Your task to perform on an android device: allow cookies in the chrome app Image 0: 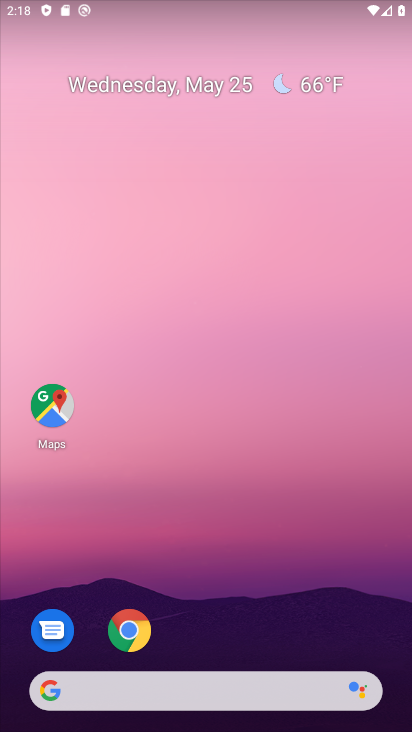
Step 0: press home button
Your task to perform on an android device: allow cookies in the chrome app Image 1: 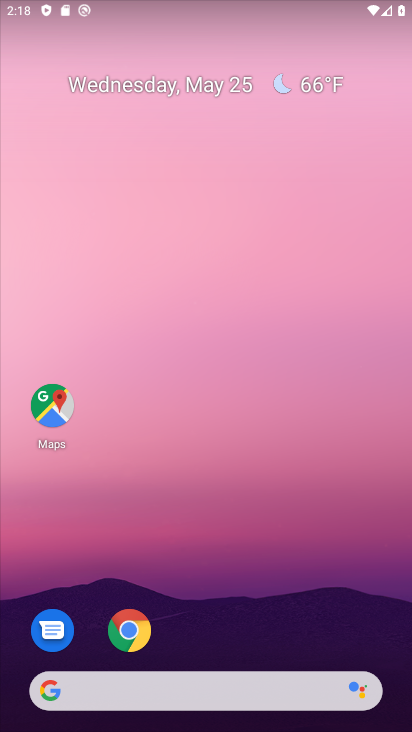
Step 1: drag from (208, 648) to (241, 18)
Your task to perform on an android device: allow cookies in the chrome app Image 2: 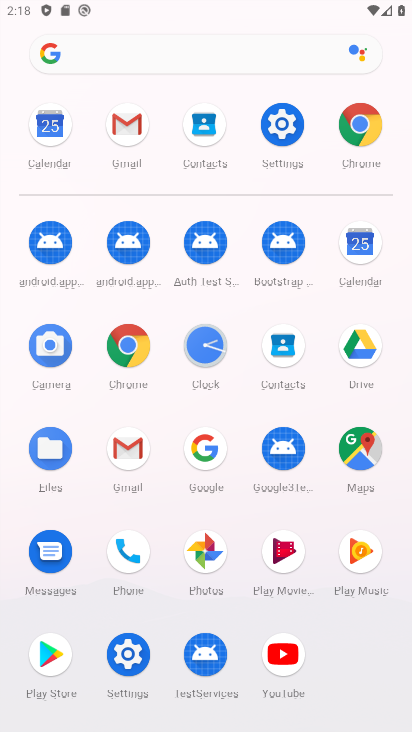
Step 2: click (124, 340)
Your task to perform on an android device: allow cookies in the chrome app Image 3: 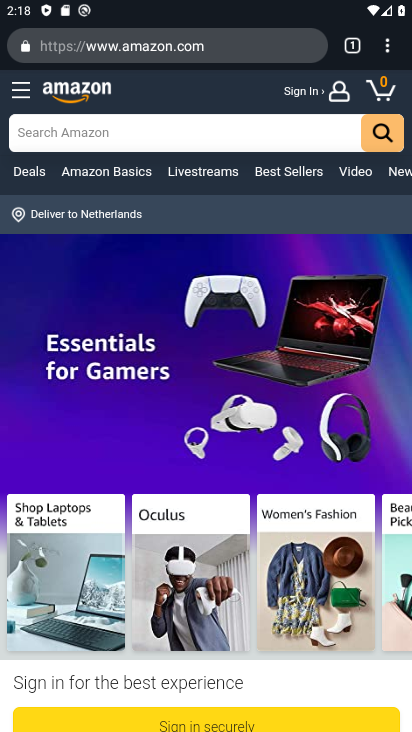
Step 3: click (390, 47)
Your task to perform on an android device: allow cookies in the chrome app Image 4: 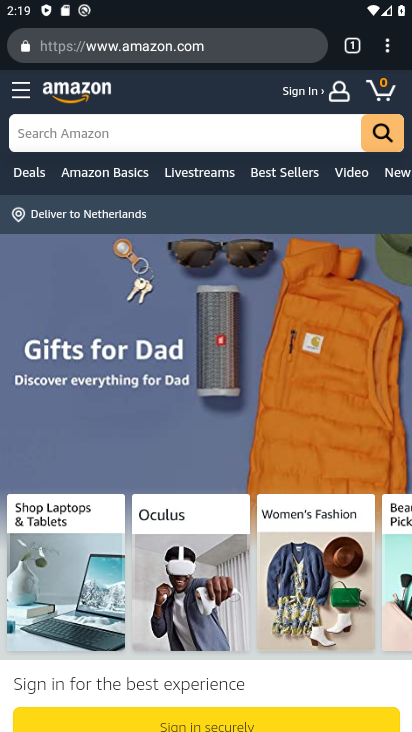
Step 4: click (389, 46)
Your task to perform on an android device: allow cookies in the chrome app Image 5: 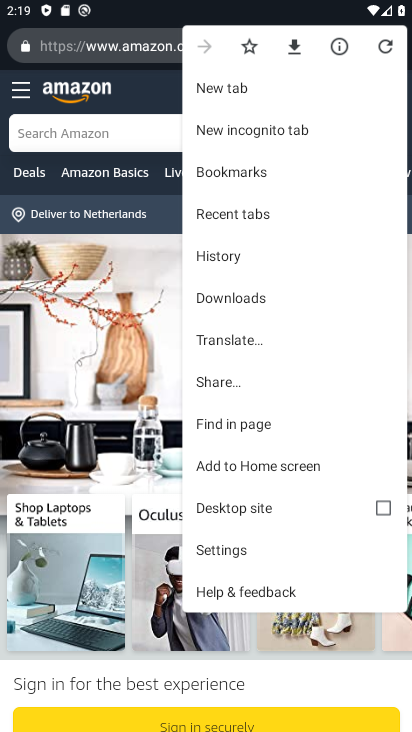
Step 5: click (245, 547)
Your task to perform on an android device: allow cookies in the chrome app Image 6: 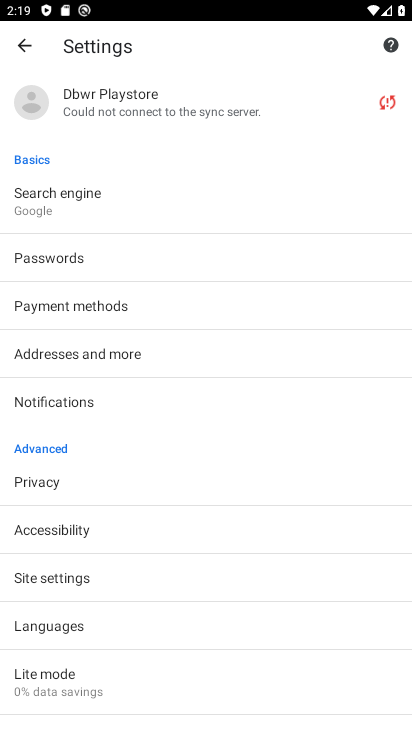
Step 6: click (99, 574)
Your task to perform on an android device: allow cookies in the chrome app Image 7: 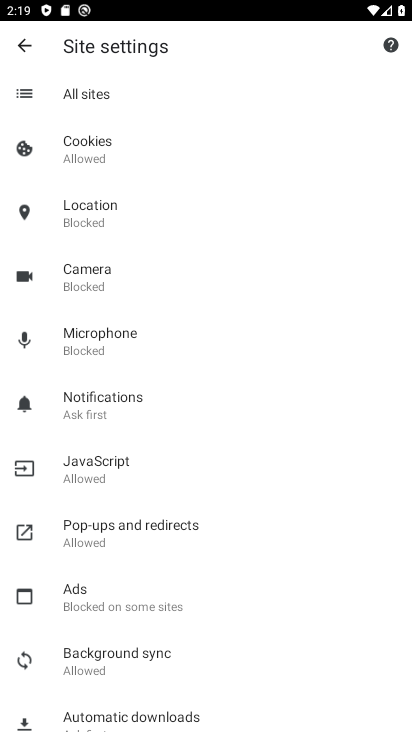
Step 7: click (132, 146)
Your task to perform on an android device: allow cookies in the chrome app Image 8: 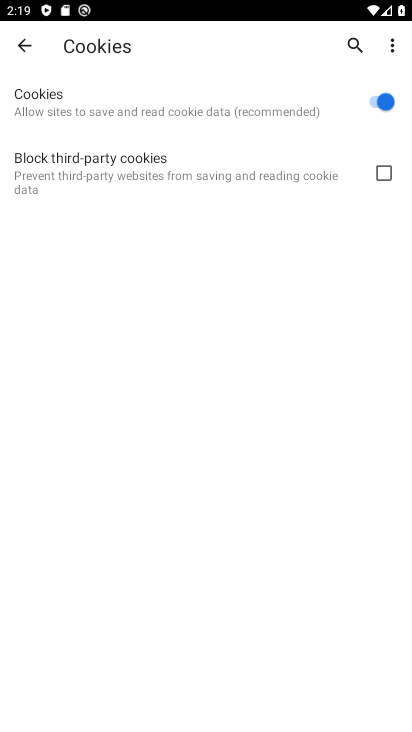
Step 8: task complete